Your task to perform on an android device: Go to display settings Image 0: 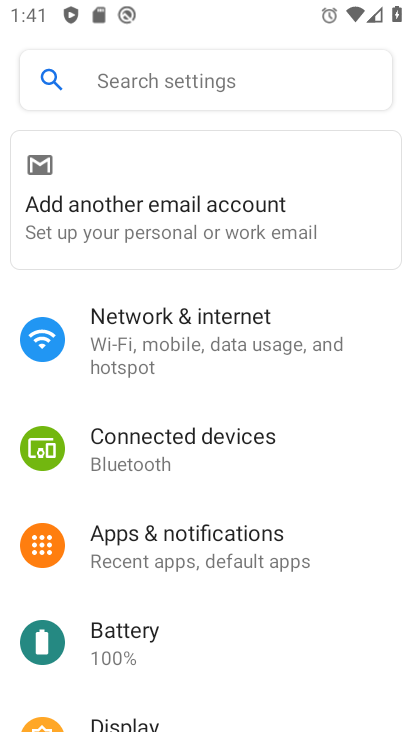
Step 0: drag from (307, 557) to (295, 312)
Your task to perform on an android device: Go to display settings Image 1: 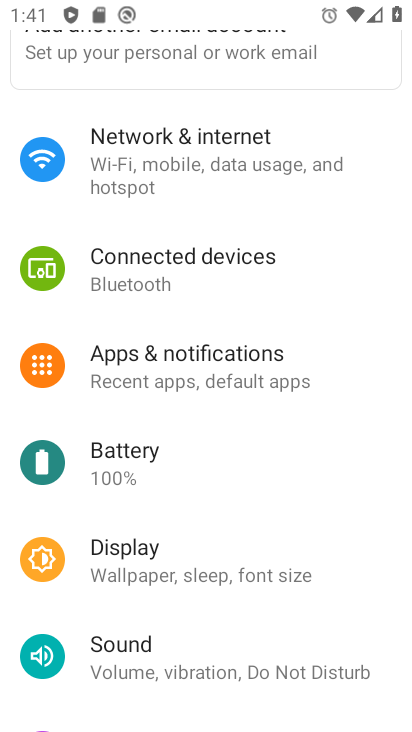
Step 1: click (133, 555)
Your task to perform on an android device: Go to display settings Image 2: 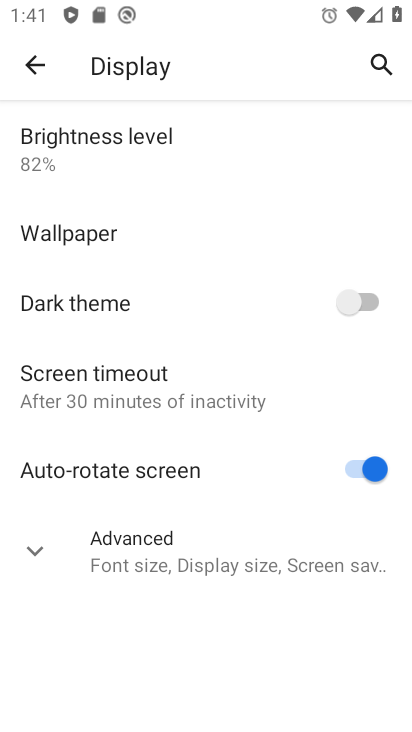
Step 2: task complete